Your task to perform on an android device: turn on airplane mode Image 0: 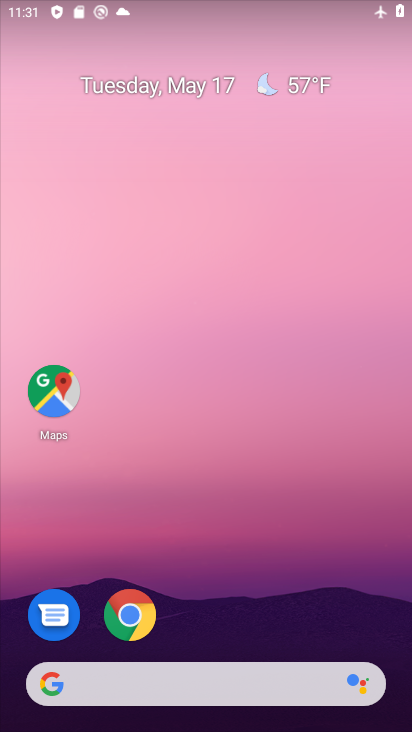
Step 0: drag from (362, 605) to (304, 153)
Your task to perform on an android device: turn on airplane mode Image 1: 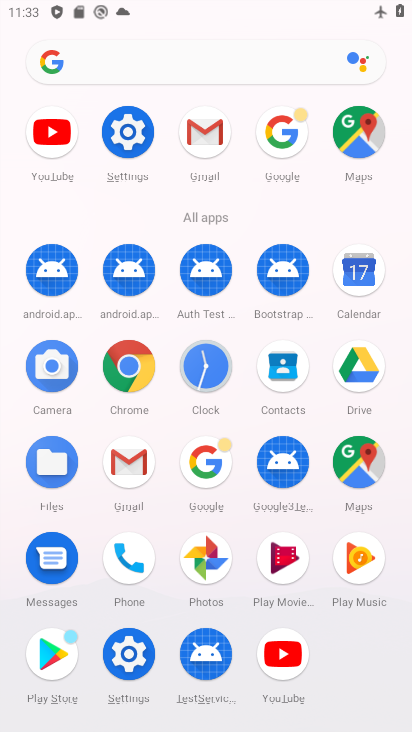
Step 1: task complete